Your task to perform on an android device: Go to privacy settings Image 0: 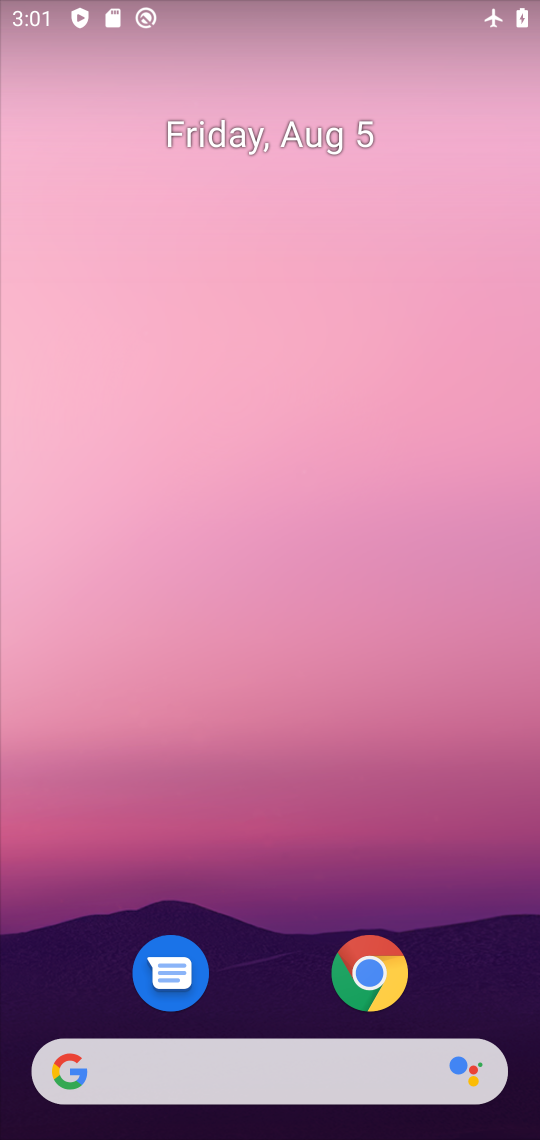
Step 0: drag from (298, 1040) to (162, 5)
Your task to perform on an android device: Go to privacy settings Image 1: 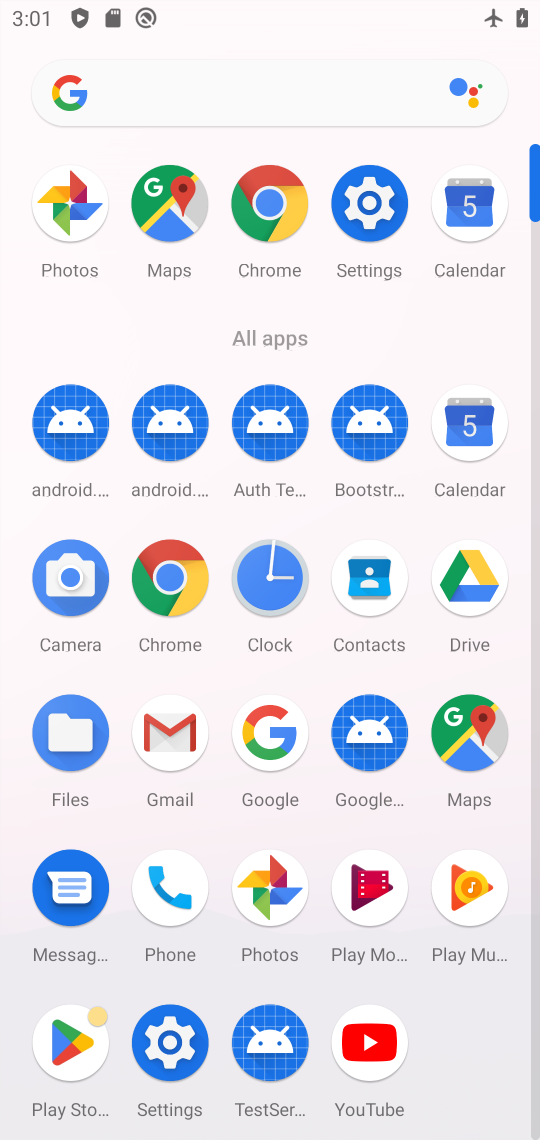
Step 1: click (364, 227)
Your task to perform on an android device: Go to privacy settings Image 2: 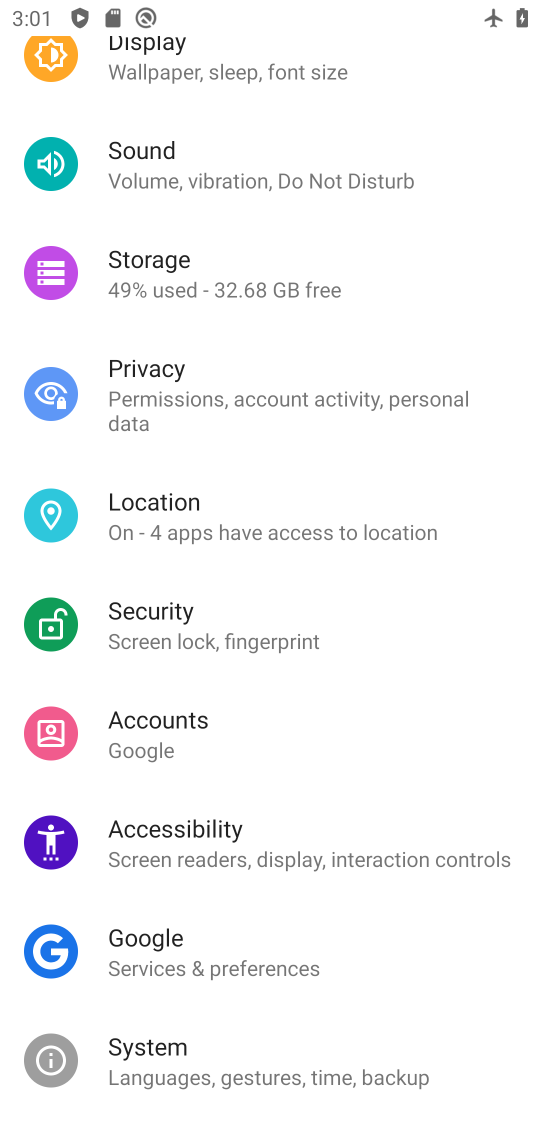
Step 2: click (169, 396)
Your task to perform on an android device: Go to privacy settings Image 3: 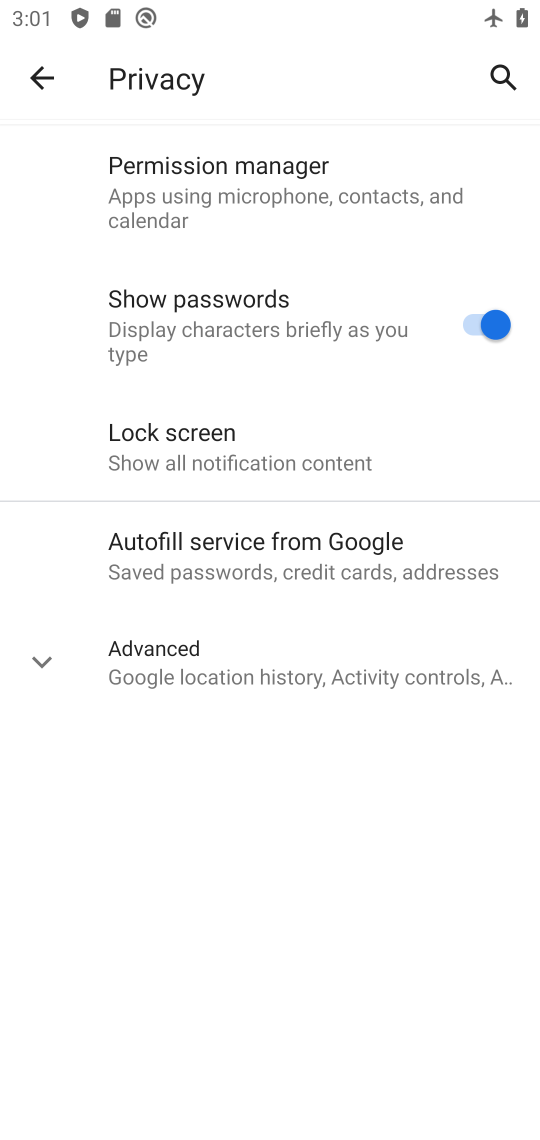
Step 3: click (215, 666)
Your task to perform on an android device: Go to privacy settings Image 4: 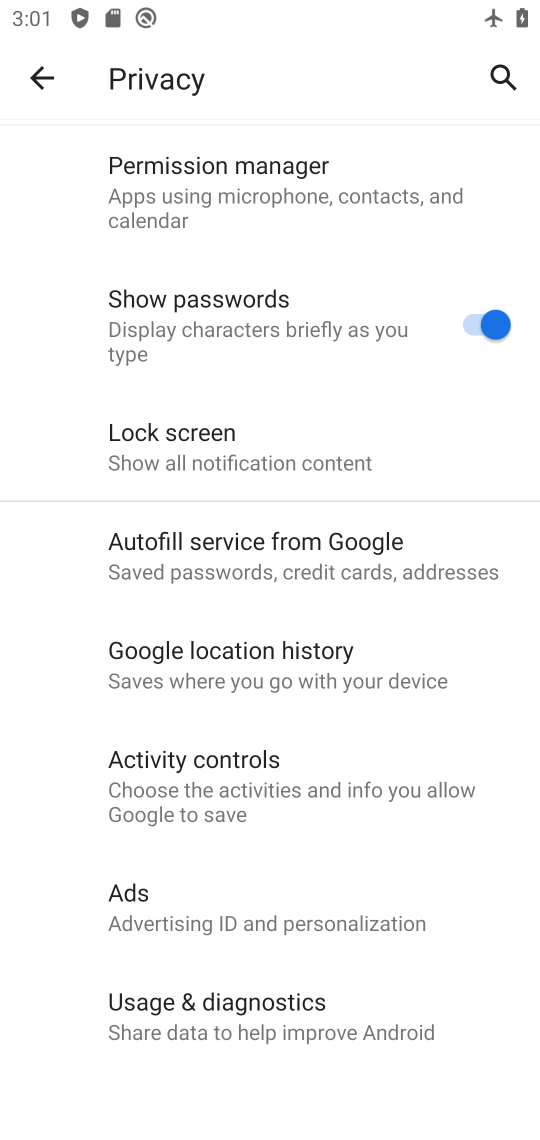
Step 4: task complete